Your task to perform on an android device: remove spam from my inbox in the gmail app Image 0: 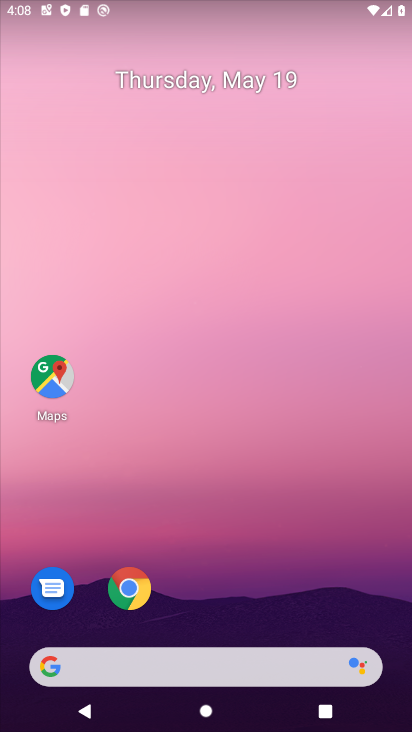
Step 0: drag from (170, 633) to (201, 199)
Your task to perform on an android device: remove spam from my inbox in the gmail app Image 1: 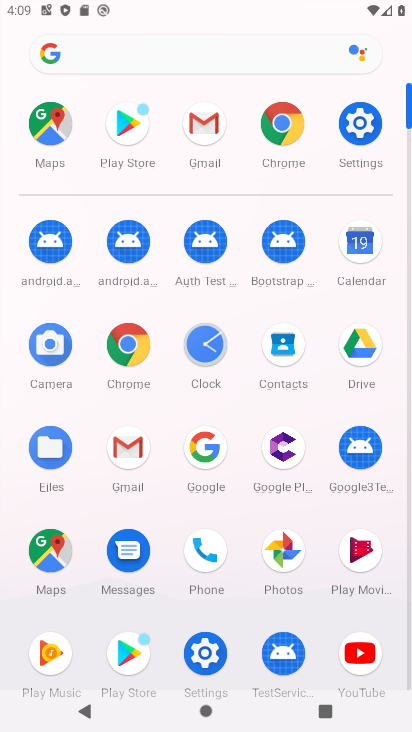
Step 1: click (217, 119)
Your task to perform on an android device: remove spam from my inbox in the gmail app Image 2: 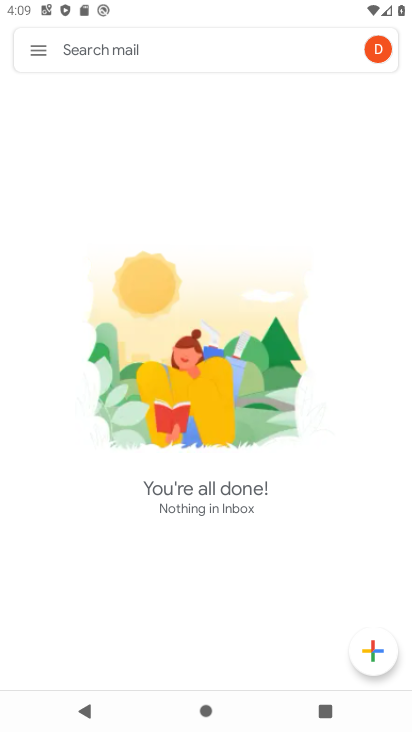
Step 2: click (40, 56)
Your task to perform on an android device: remove spam from my inbox in the gmail app Image 3: 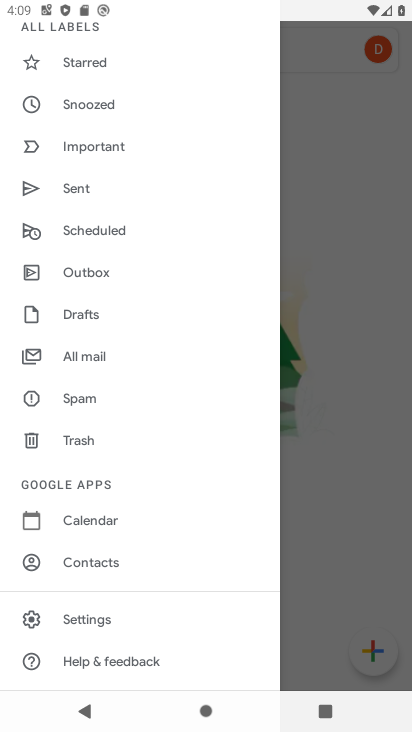
Step 3: click (75, 408)
Your task to perform on an android device: remove spam from my inbox in the gmail app Image 4: 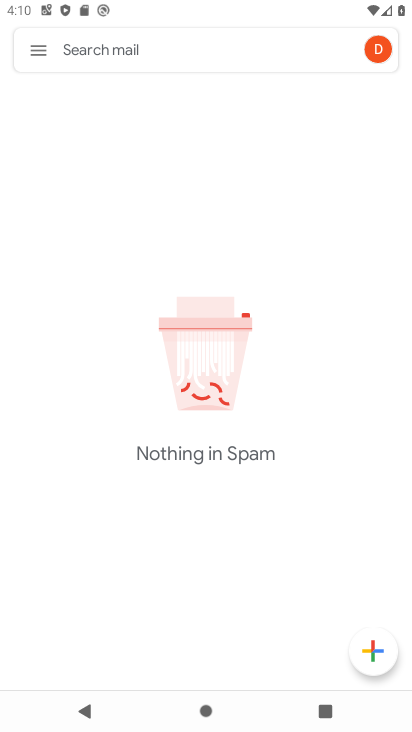
Step 4: task complete